Your task to perform on an android device: Is it going to rain this weekend? Image 0: 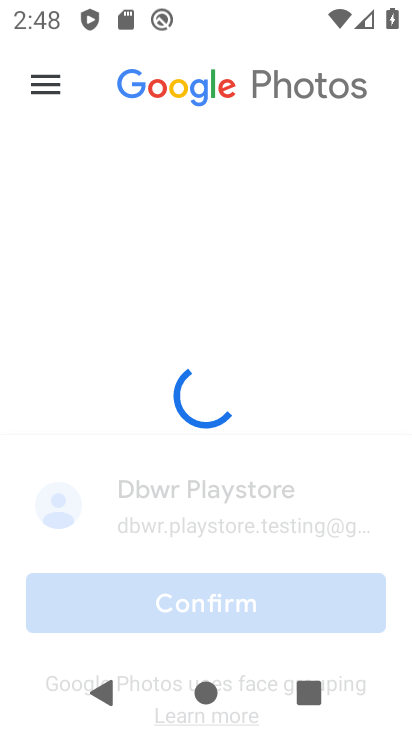
Step 0: press home button
Your task to perform on an android device: Is it going to rain this weekend? Image 1: 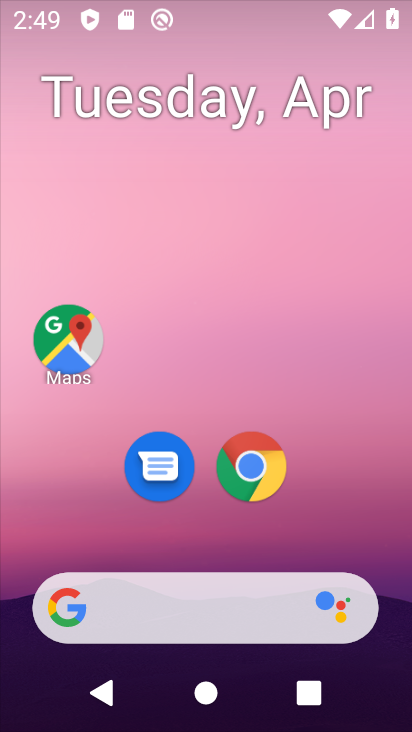
Step 1: click (181, 608)
Your task to perform on an android device: Is it going to rain this weekend? Image 2: 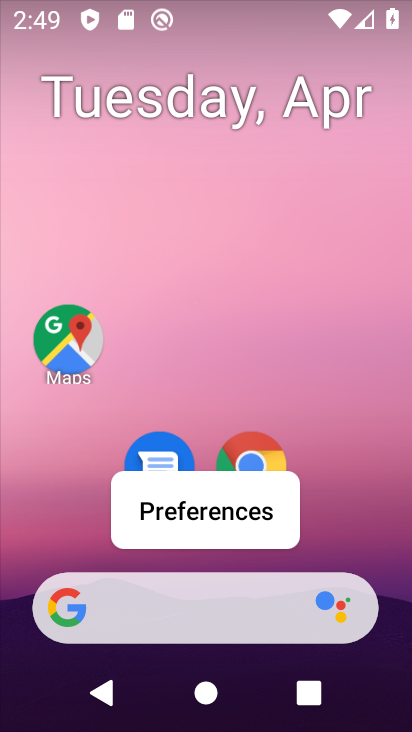
Step 2: click (181, 607)
Your task to perform on an android device: Is it going to rain this weekend? Image 3: 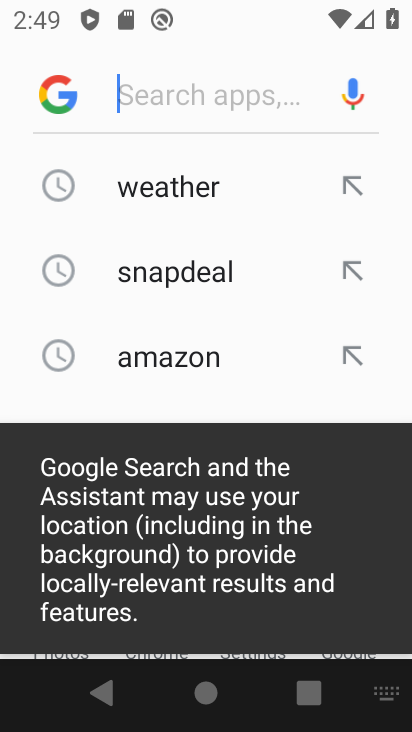
Step 3: click (161, 211)
Your task to perform on an android device: Is it going to rain this weekend? Image 4: 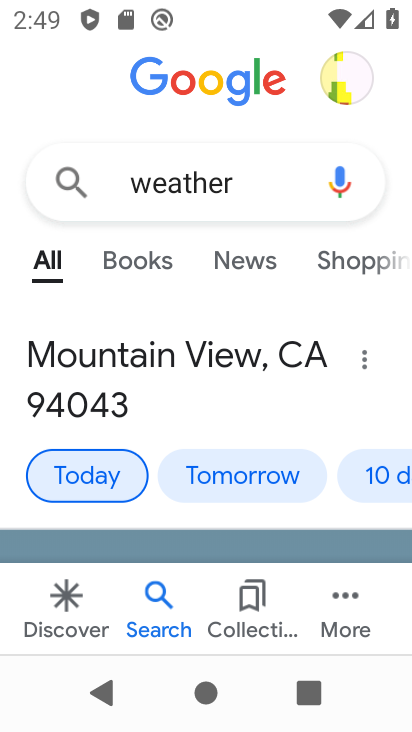
Step 4: drag from (203, 489) to (168, 40)
Your task to perform on an android device: Is it going to rain this weekend? Image 5: 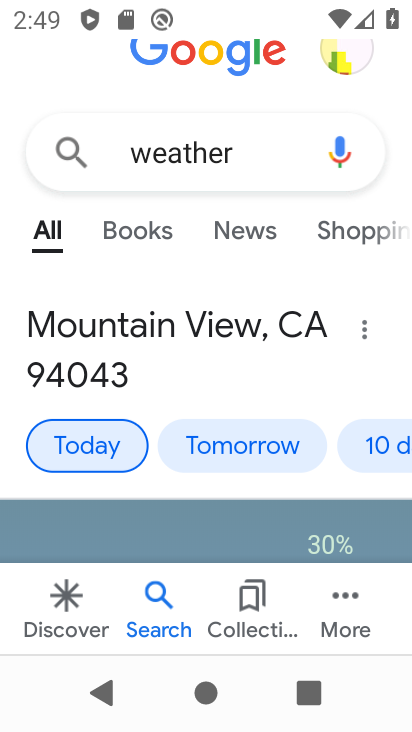
Step 5: click (390, 439)
Your task to perform on an android device: Is it going to rain this weekend? Image 6: 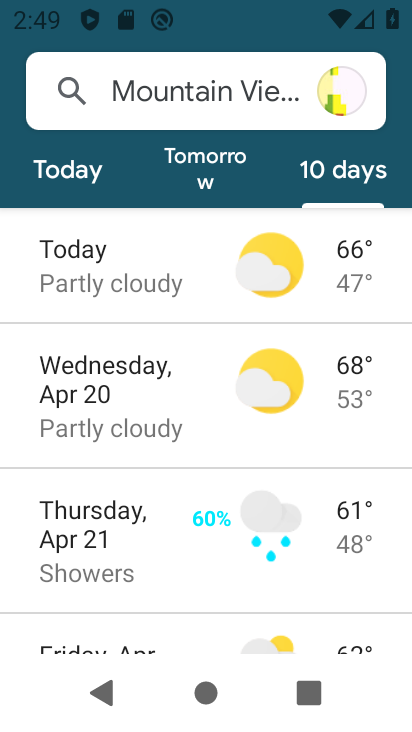
Step 6: drag from (253, 511) to (234, 387)
Your task to perform on an android device: Is it going to rain this weekend? Image 7: 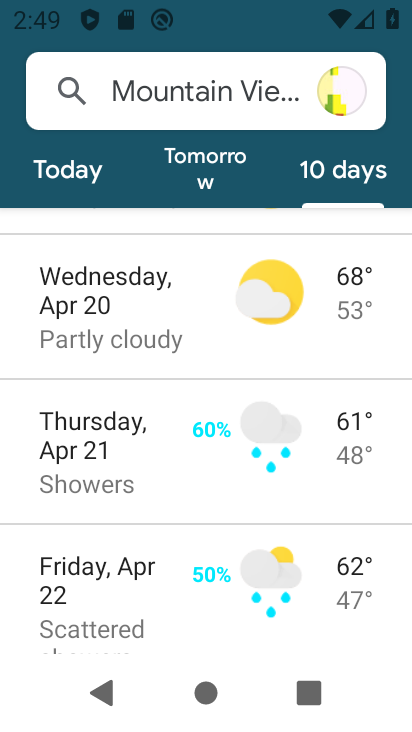
Step 7: drag from (215, 574) to (181, 269)
Your task to perform on an android device: Is it going to rain this weekend? Image 8: 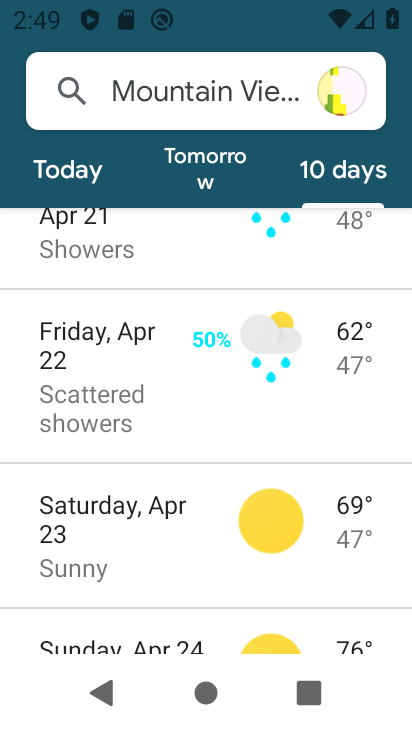
Step 8: click (172, 329)
Your task to perform on an android device: Is it going to rain this weekend? Image 9: 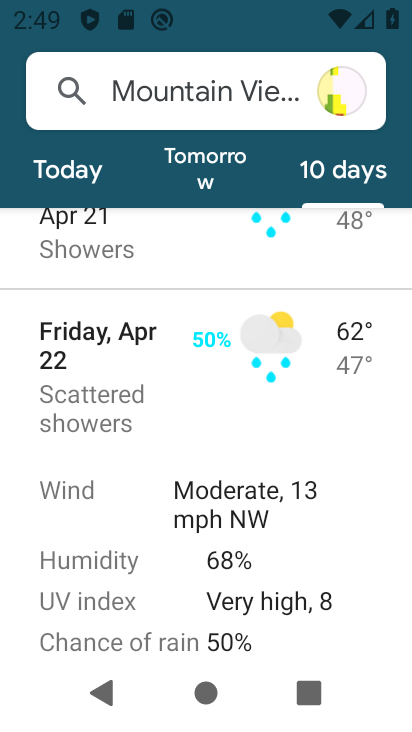
Step 9: task complete